Your task to perform on an android device: turn off sleep mode Image 0: 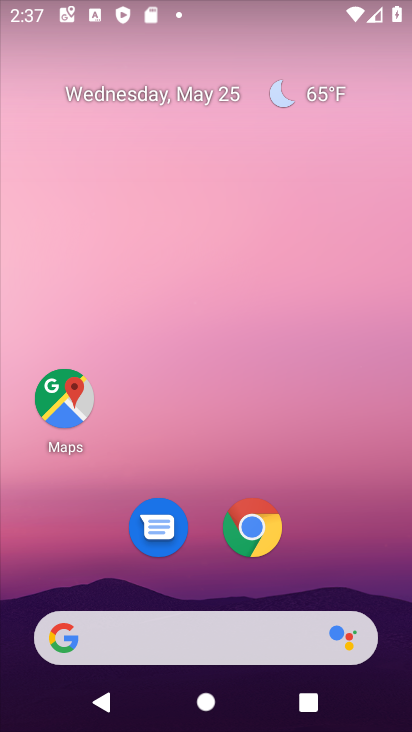
Step 0: drag from (294, 645) to (304, 20)
Your task to perform on an android device: turn off sleep mode Image 1: 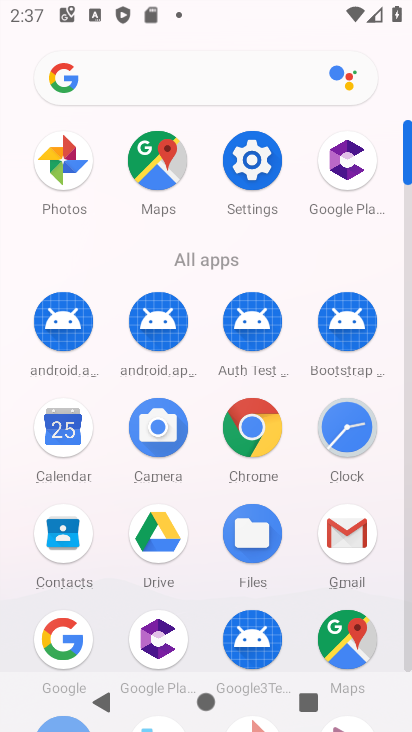
Step 1: click (237, 155)
Your task to perform on an android device: turn off sleep mode Image 2: 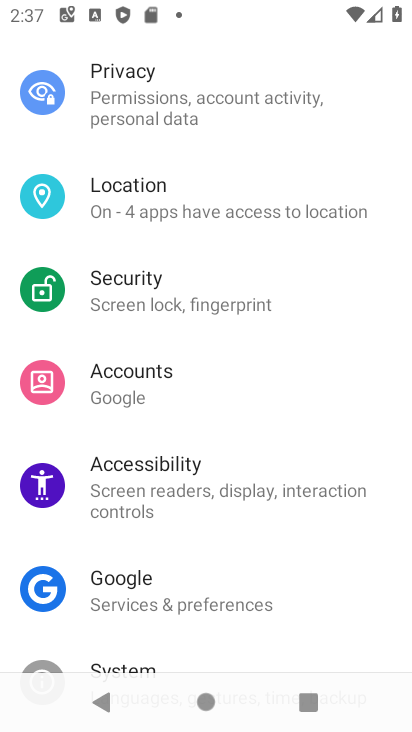
Step 2: drag from (229, 110) to (229, 654)
Your task to perform on an android device: turn off sleep mode Image 3: 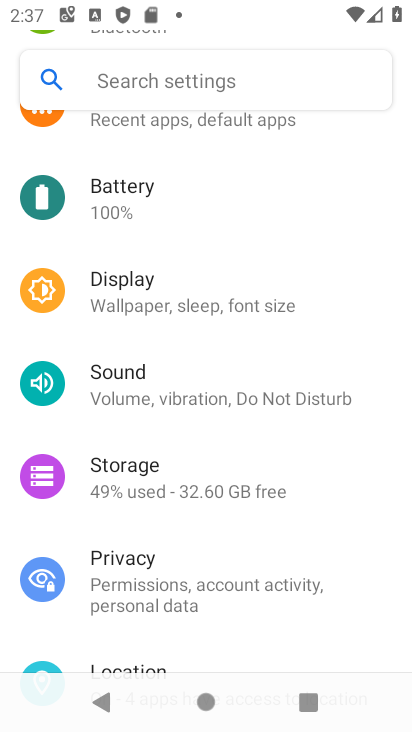
Step 3: click (187, 297)
Your task to perform on an android device: turn off sleep mode Image 4: 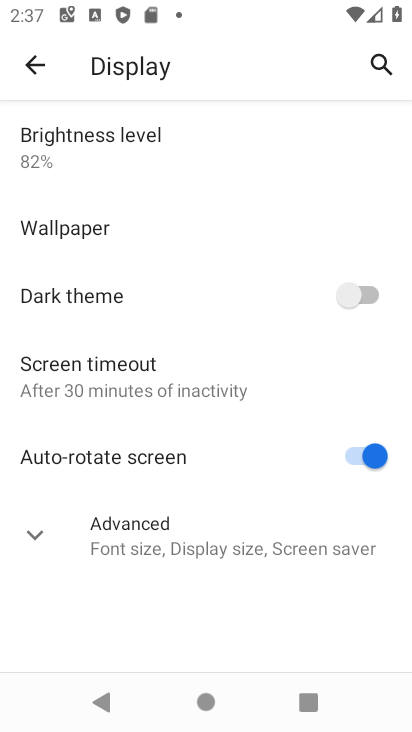
Step 4: task complete